Your task to perform on an android device: When is my next meeting? Image 0: 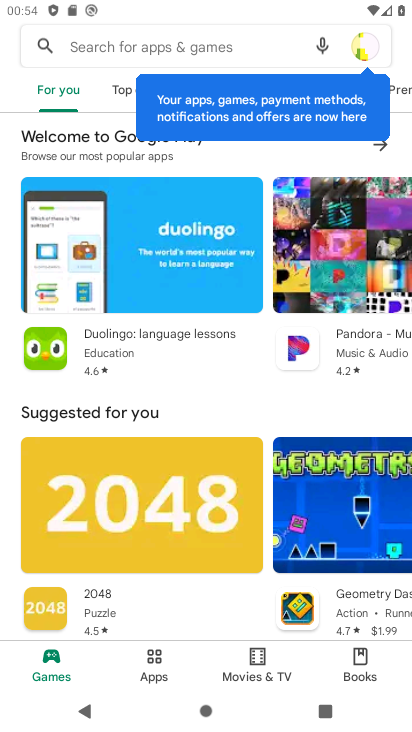
Step 0: press back button
Your task to perform on an android device: When is my next meeting? Image 1: 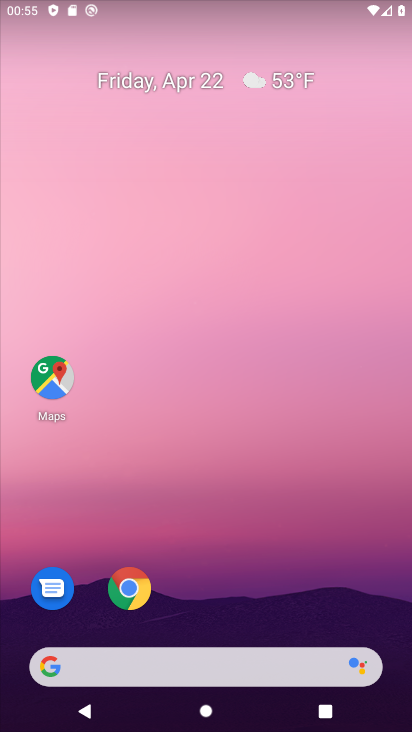
Step 1: drag from (251, 553) to (295, 77)
Your task to perform on an android device: When is my next meeting? Image 2: 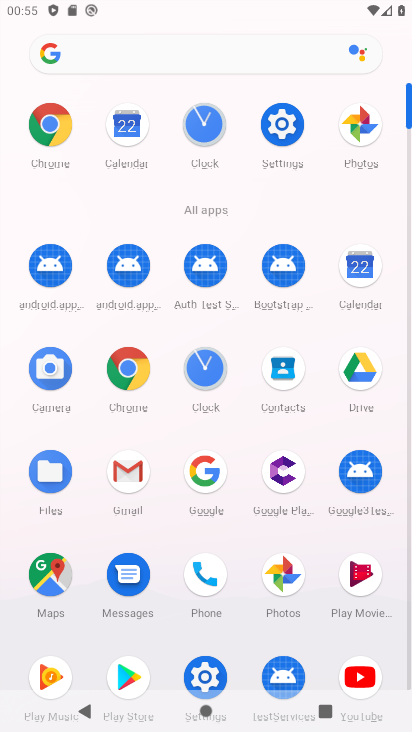
Step 2: click (349, 275)
Your task to perform on an android device: When is my next meeting? Image 3: 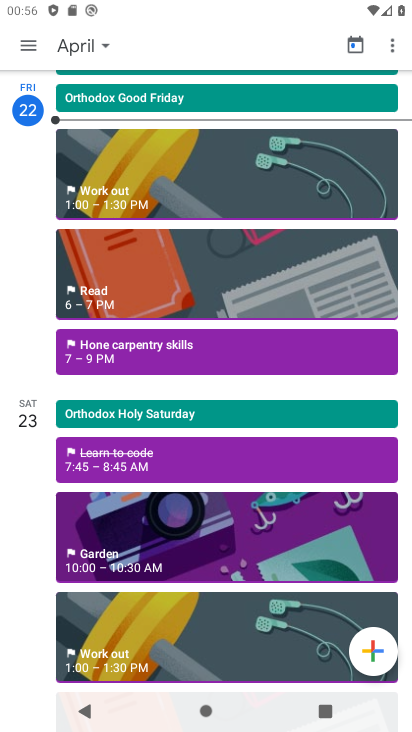
Step 3: task complete